Your task to perform on an android device: Play the last video I watched on Youtube Image 0: 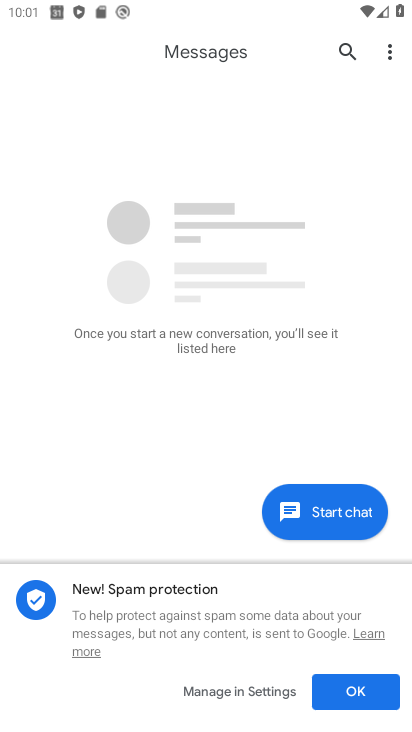
Step 0: press home button
Your task to perform on an android device: Play the last video I watched on Youtube Image 1: 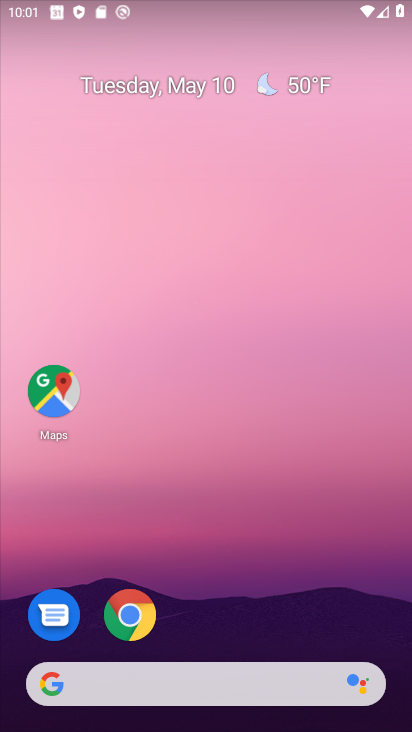
Step 1: drag from (215, 633) to (214, 98)
Your task to perform on an android device: Play the last video I watched on Youtube Image 2: 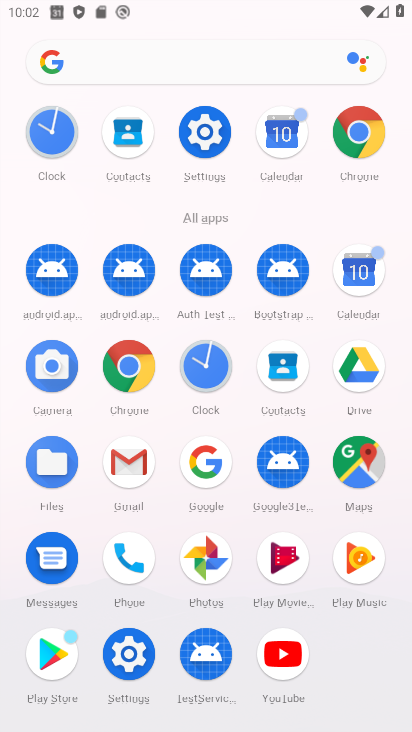
Step 2: click (281, 649)
Your task to perform on an android device: Play the last video I watched on Youtube Image 3: 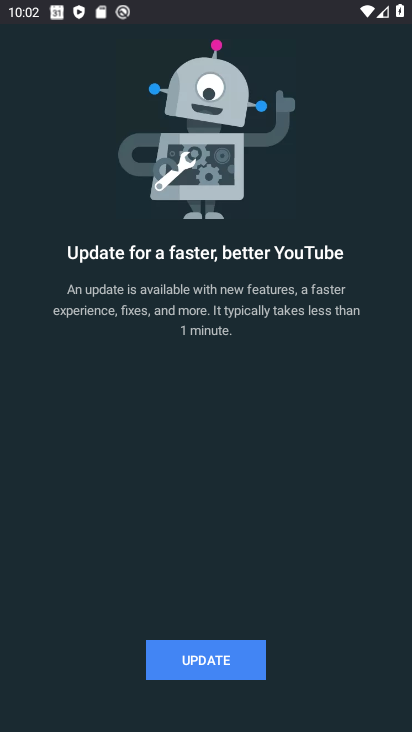
Step 3: click (210, 657)
Your task to perform on an android device: Play the last video I watched on Youtube Image 4: 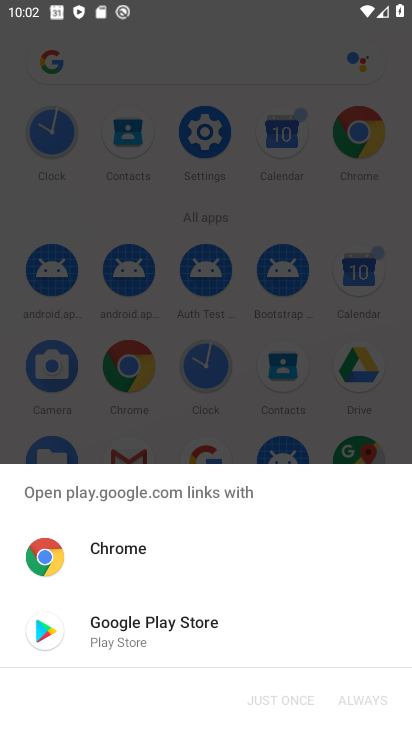
Step 4: click (93, 645)
Your task to perform on an android device: Play the last video I watched on Youtube Image 5: 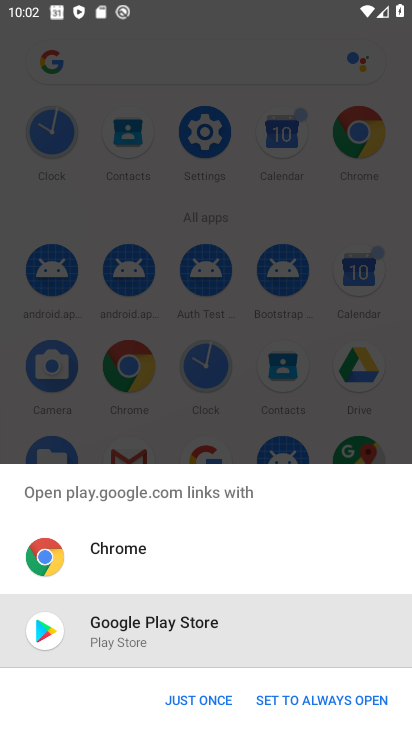
Step 5: click (191, 701)
Your task to perform on an android device: Play the last video I watched on Youtube Image 6: 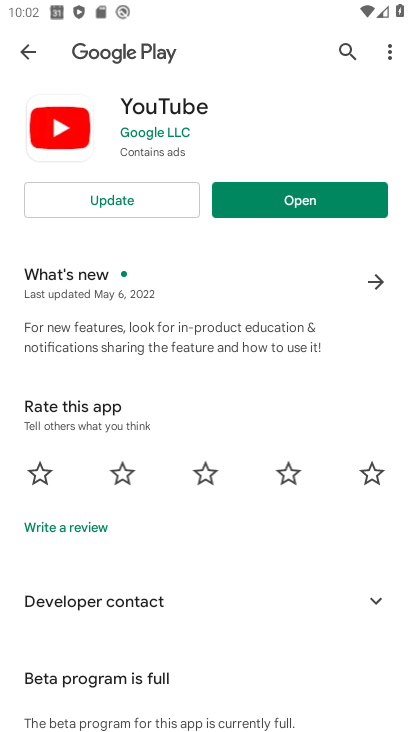
Step 6: click (108, 192)
Your task to perform on an android device: Play the last video I watched on Youtube Image 7: 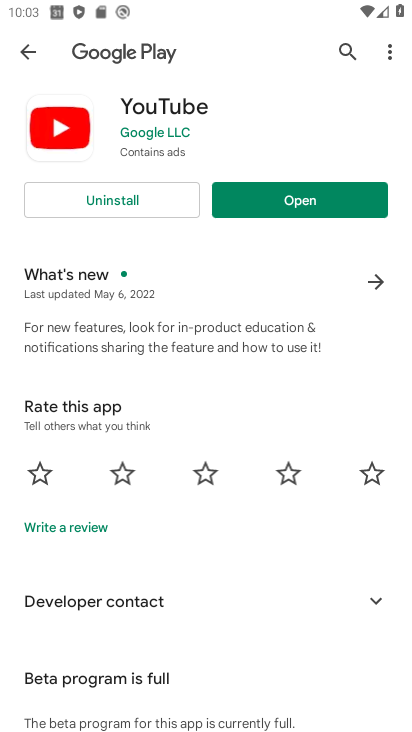
Step 7: click (316, 203)
Your task to perform on an android device: Play the last video I watched on Youtube Image 8: 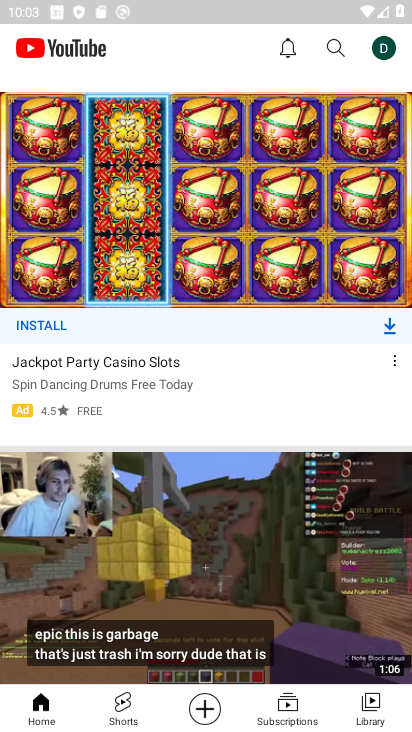
Step 8: click (368, 713)
Your task to perform on an android device: Play the last video I watched on Youtube Image 9: 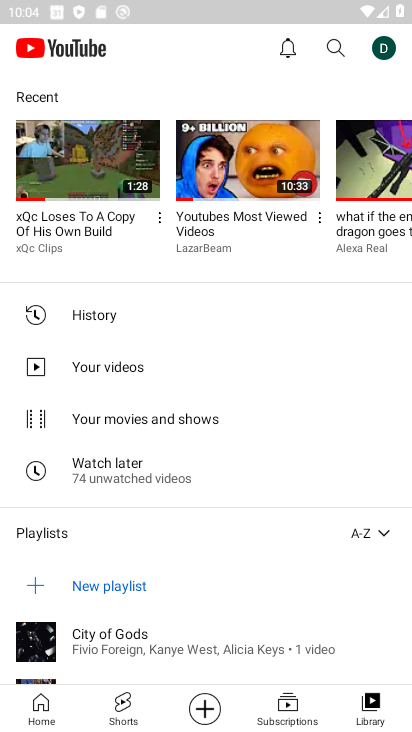
Step 9: click (74, 169)
Your task to perform on an android device: Play the last video I watched on Youtube Image 10: 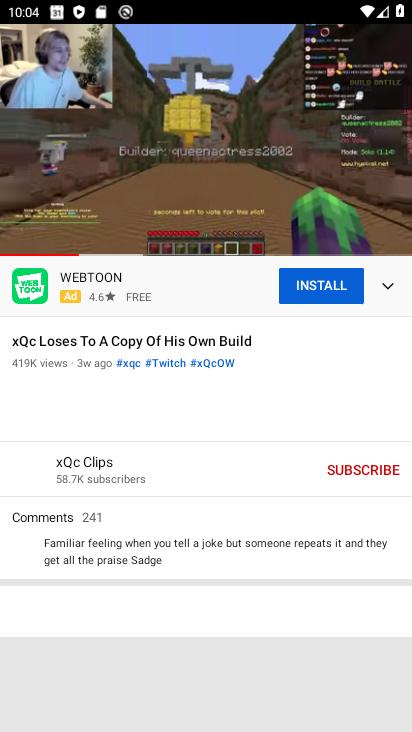
Step 10: task complete